Your task to perform on an android device: Open Reddit.com Image 0: 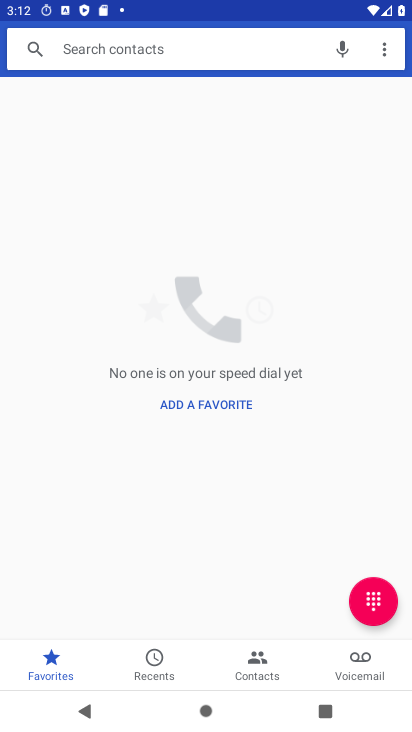
Step 0: press home button
Your task to perform on an android device: Open Reddit.com Image 1: 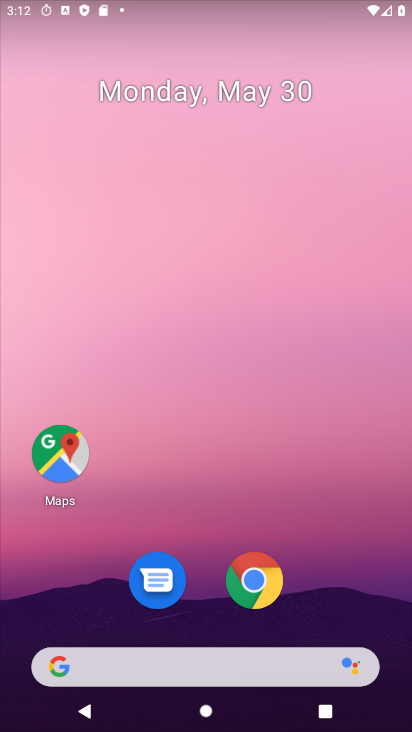
Step 1: drag from (212, 583) to (252, 68)
Your task to perform on an android device: Open Reddit.com Image 2: 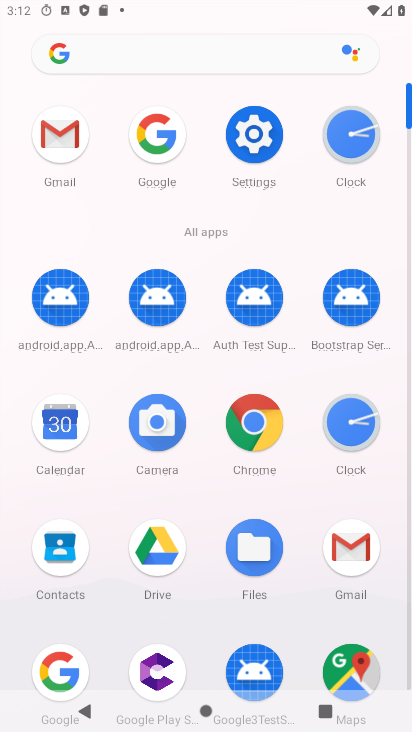
Step 2: click (61, 671)
Your task to perform on an android device: Open Reddit.com Image 3: 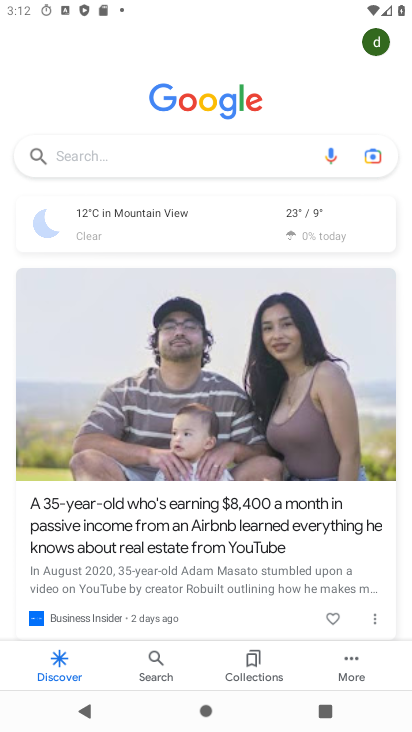
Step 3: click (152, 155)
Your task to perform on an android device: Open Reddit.com Image 4: 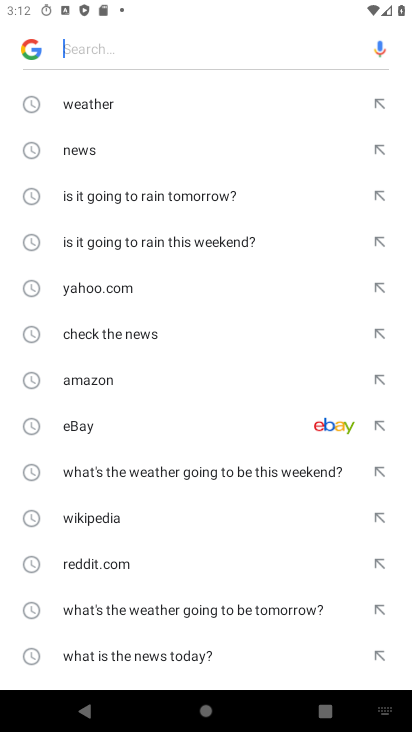
Step 4: click (109, 575)
Your task to perform on an android device: Open Reddit.com Image 5: 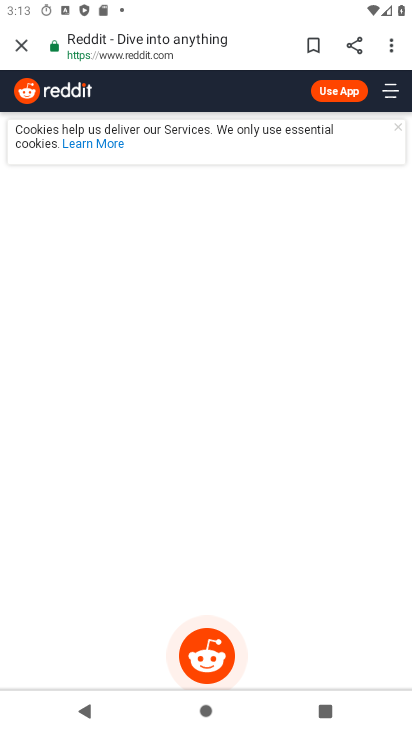
Step 5: task complete